Your task to perform on an android device: Toggle the flashlight Image 0: 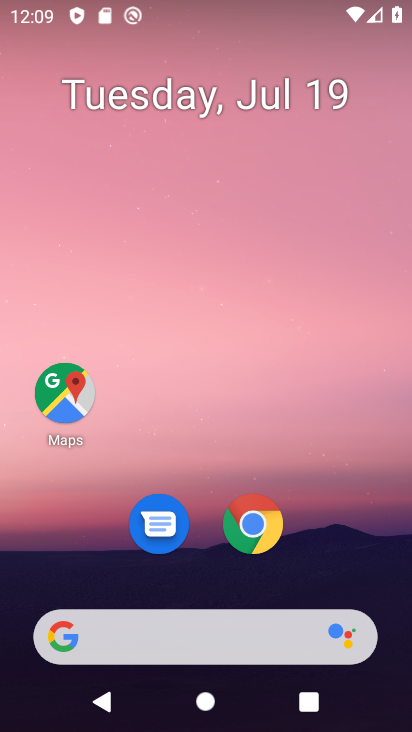
Step 0: press home button
Your task to perform on an android device: Toggle the flashlight Image 1: 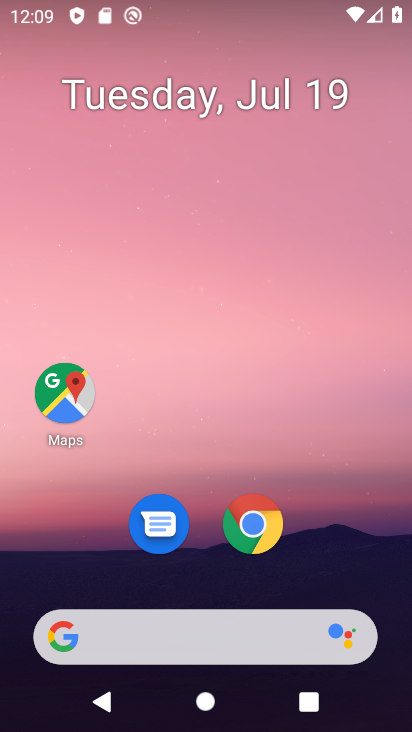
Step 1: task complete